Your task to perform on an android device: delete location history Image 0: 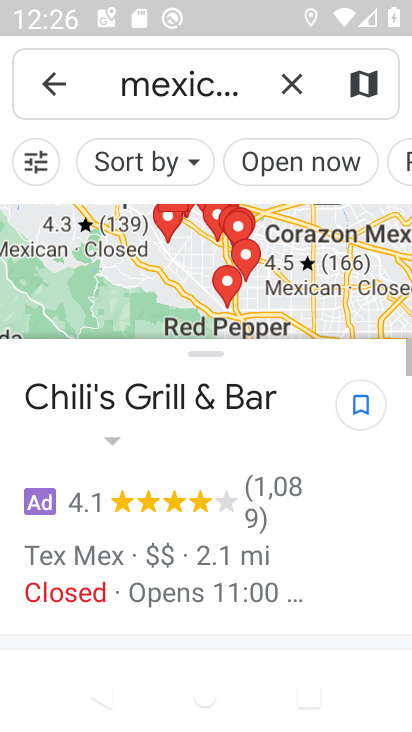
Step 0: press home button
Your task to perform on an android device: delete location history Image 1: 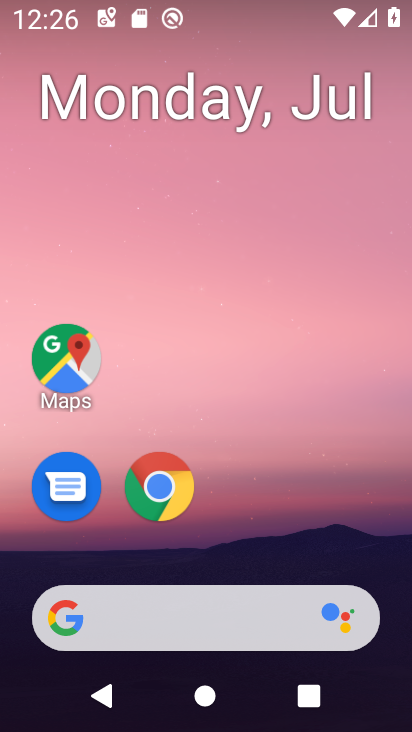
Step 1: drag from (376, 515) to (375, 68)
Your task to perform on an android device: delete location history Image 2: 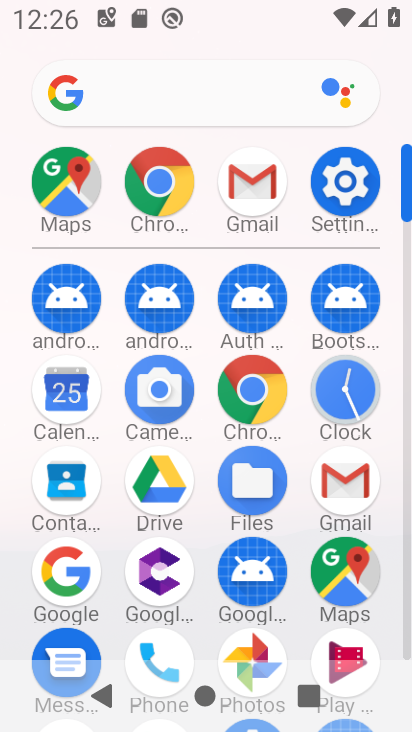
Step 2: click (350, 560)
Your task to perform on an android device: delete location history Image 3: 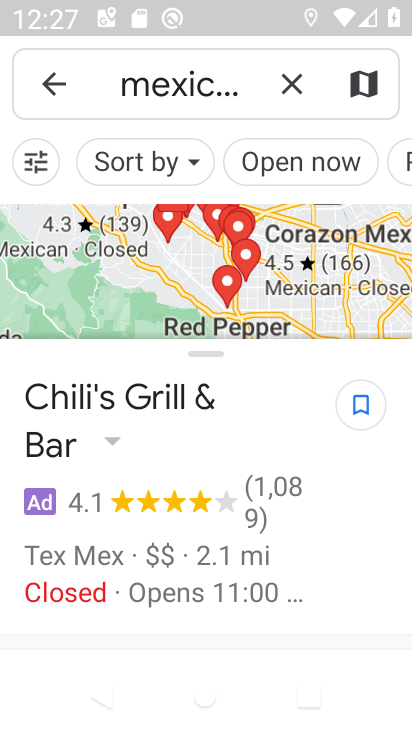
Step 3: press back button
Your task to perform on an android device: delete location history Image 4: 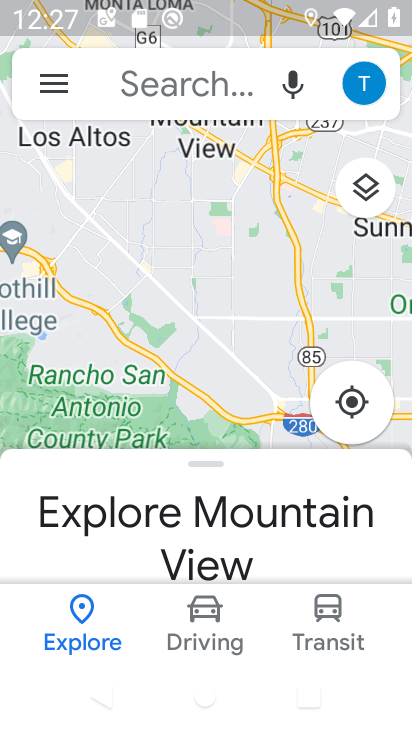
Step 4: click (59, 86)
Your task to perform on an android device: delete location history Image 5: 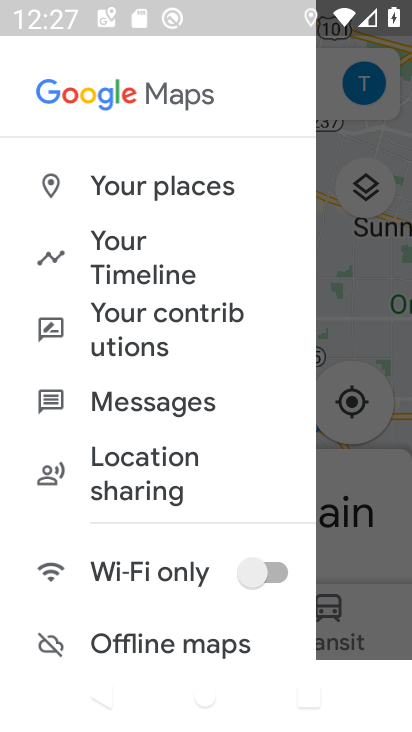
Step 5: click (129, 248)
Your task to perform on an android device: delete location history Image 6: 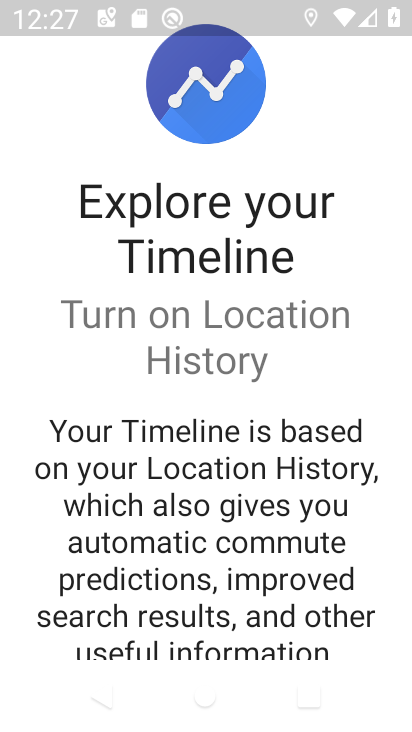
Step 6: drag from (250, 540) to (249, 455)
Your task to perform on an android device: delete location history Image 7: 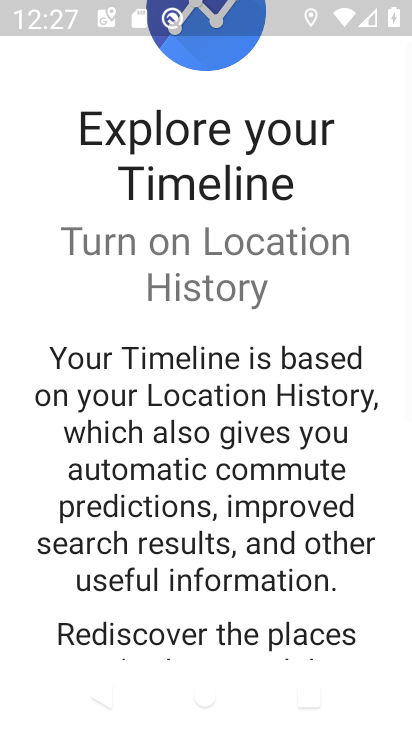
Step 7: drag from (238, 540) to (239, 431)
Your task to perform on an android device: delete location history Image 8: 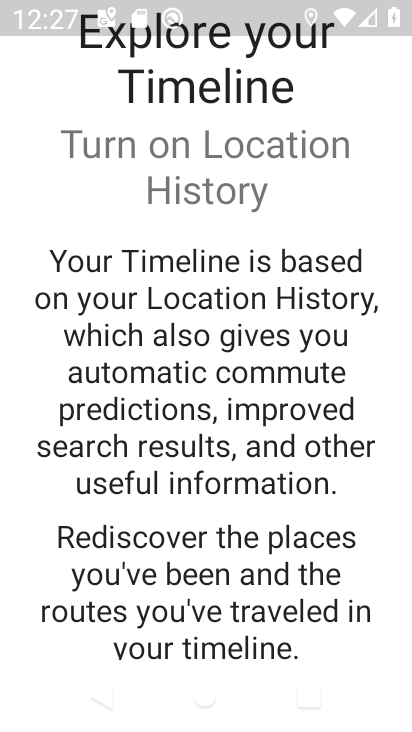
Step 8: drag from (242, 517) to (250, 419)
Your task to perform on an android device: delete location history Image 9: 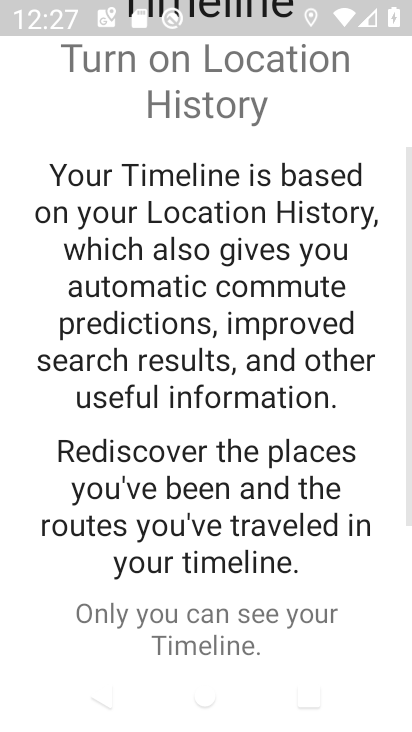
Step 9: drag from (275, 542) to (278, 243)
Your task to perform on an android device: delete location history Image 10: 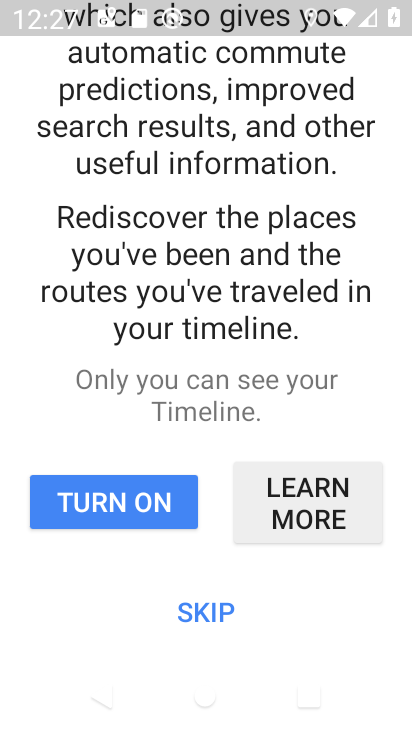
Step 10: click (217, 622)
Your task to perform on an android device: delete location history Image 11: 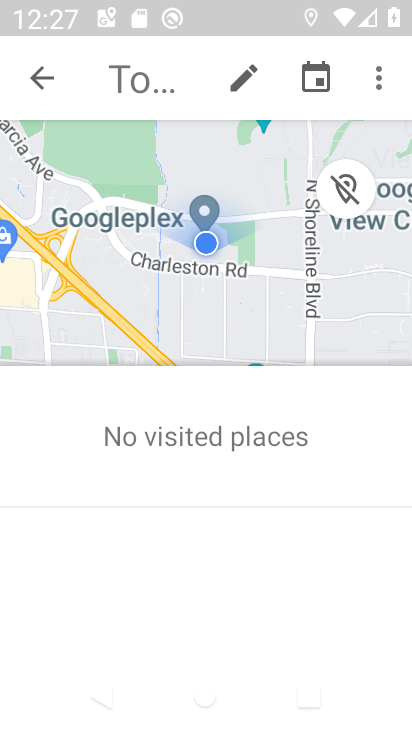
Step 11: click (379, 86)
Your task to perform on an android device: delete location history Image 12: 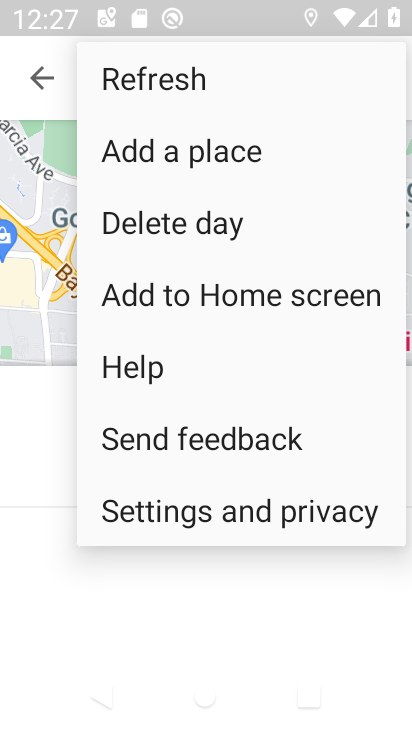
Step 12: click (234, 503)
Your task to perform on an android device: delete location history Image 13: 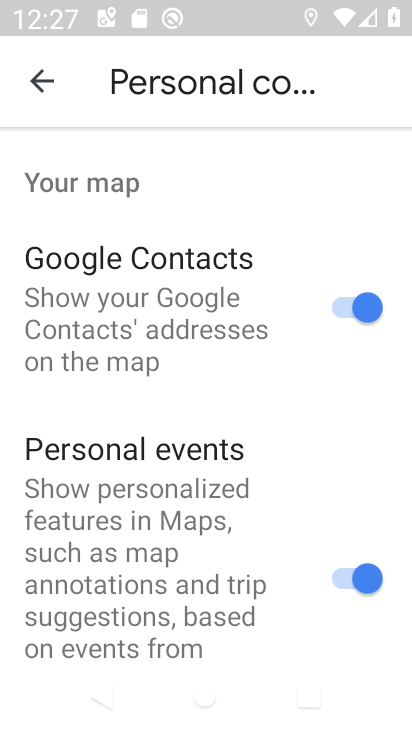
Step 13: drag from (264, 536) to (261, 414)
Your task to perform on an android device: delete location history Image 14: 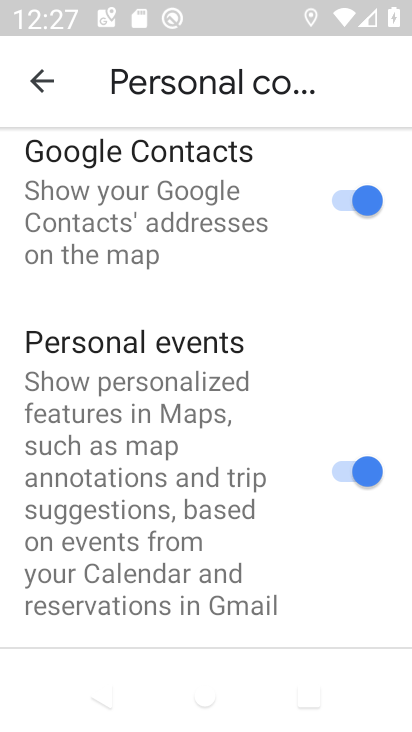
Step 14: drag from (279, 533) to (286, 423)
Your task to perform on an android device: delete location history Image 15: 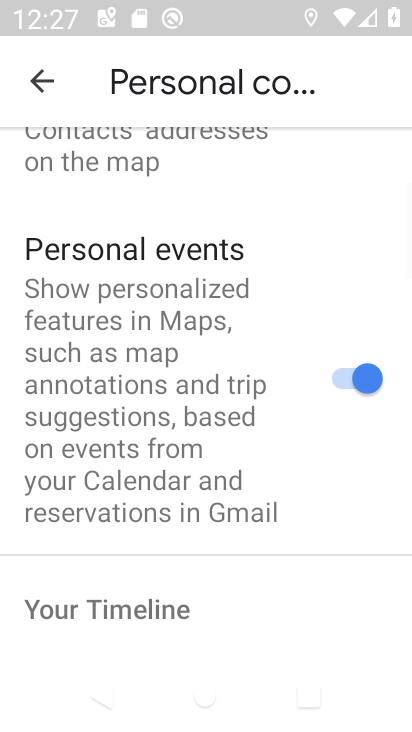
Step 15: drag from (286, 556) to (288, 432)
Your task to perform on an android device: delete location history Image 16: 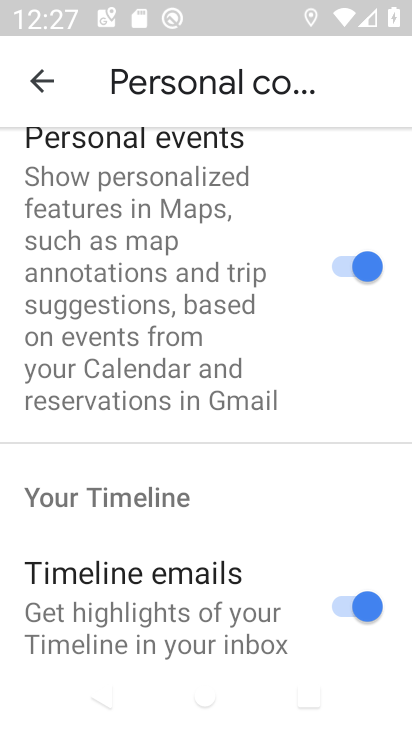
Step 16: drag from (289, 578) to (287, 438)
Your task to perform on an android device: delete location history Image 17: 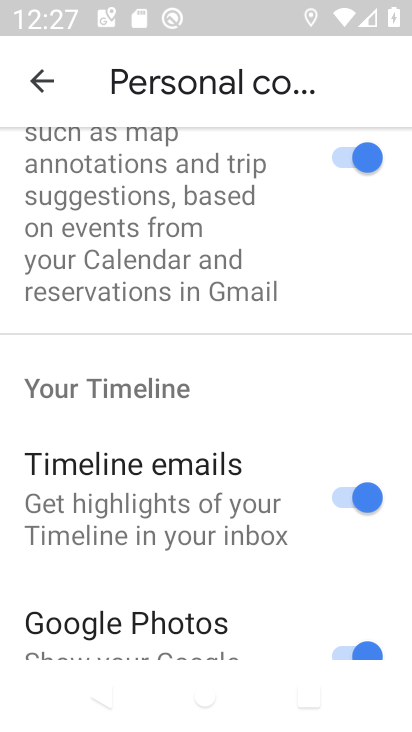
Step 17: drag from (286, 593) to (290, 472)
Your task to perform on an android device: delete location history Image 18: 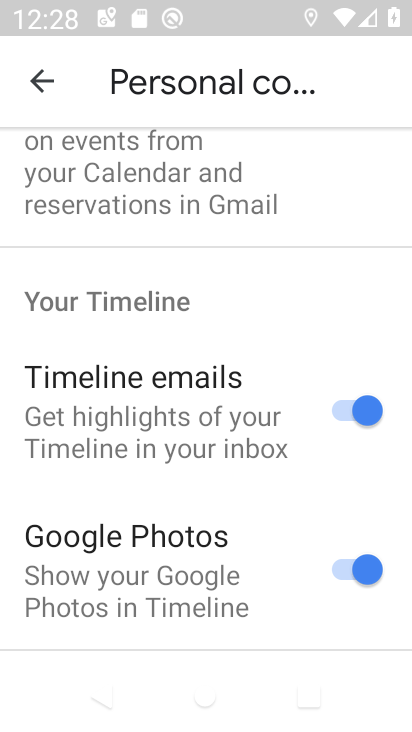
Step 18: drag from (291, 564) to (284, 425)
Your task to perform on an android device: delete location history Image 19: 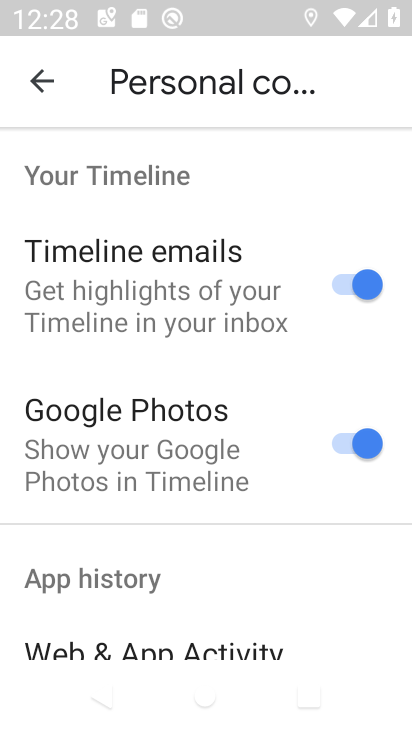
Step 19: drag from (283, 588) to (284, 361)
Your task to perform on an android device: delete location history Image 20: 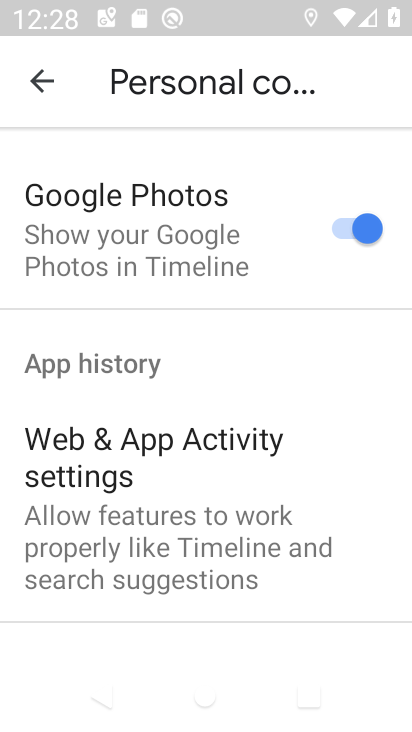
Step 20: drag from (271, 624) to (280, 407)
Your task to perform on an android device: delete location history Image 21: 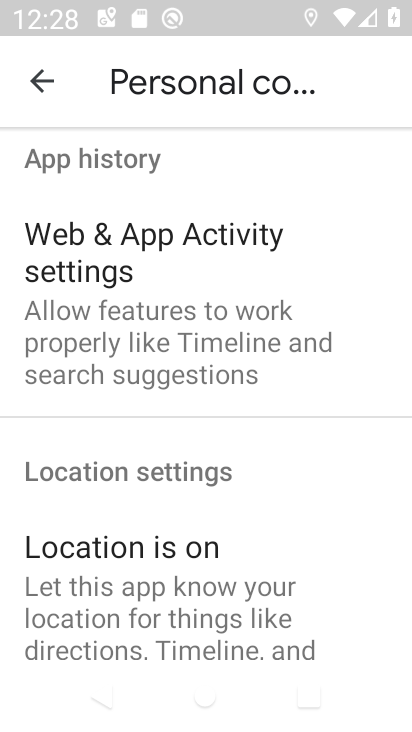
Step 21: drag from (302, 608) to (307, 401)
Your task to perform on an android device: delete location history Image 22: 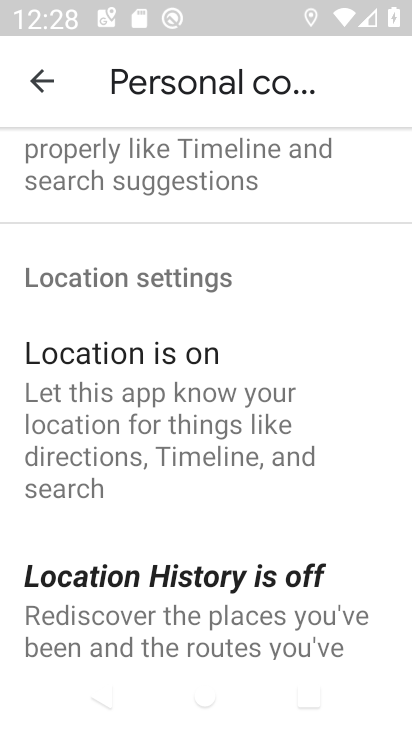
Step 22: drag from (305, 611) to (299, 436)
Your task to perform on an android device: delete location history Image 23: 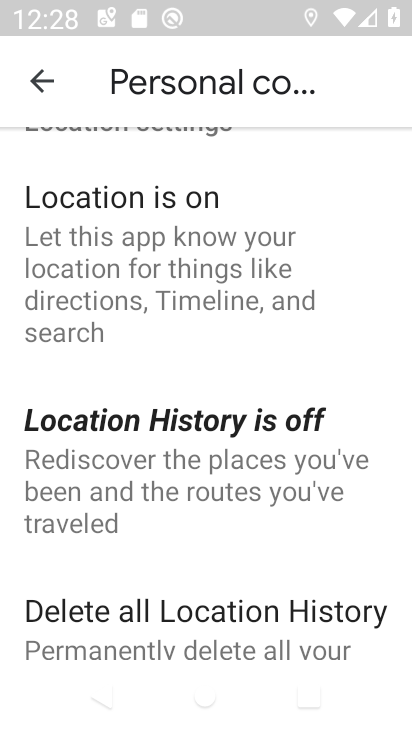
Step 23: drag from (283, 643) to (265, 502)
Your task to perform on an android device: delete location history Image 24: 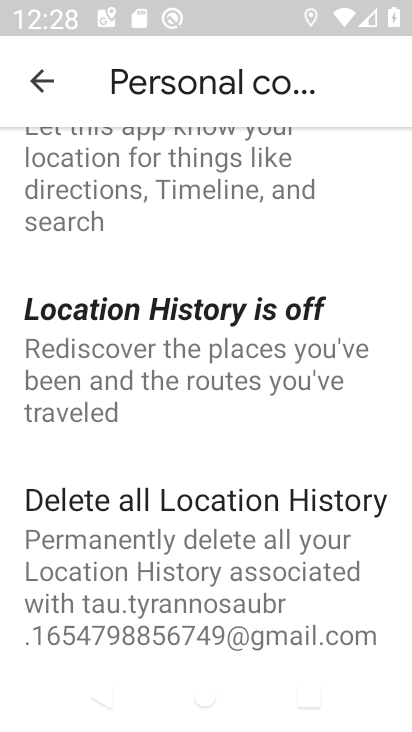
Step 24: click (267, 562)
Your task to perform on an android device: delete location history Image 25: 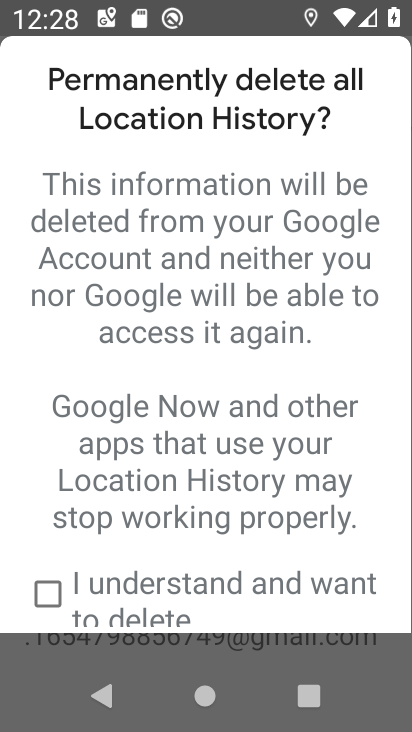
Step 25: click (36, 591)
Your task to perform on an android device: delete location history Image 26: 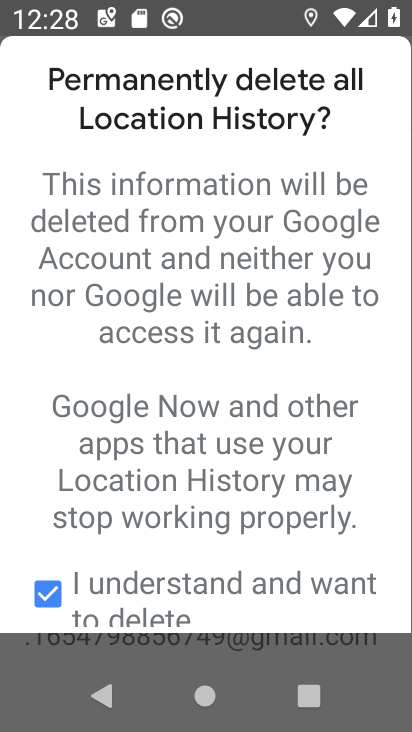
Step 26: task complete